Your task to perform on an android device: What's on my calendar tomorrow? Image 0: 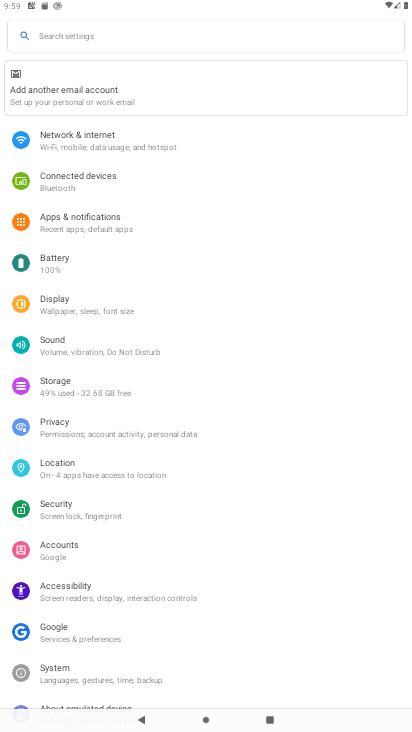
Step 0: press home button
Your task to perform on an android device: What's on my calendar tomorrow? Image 1: 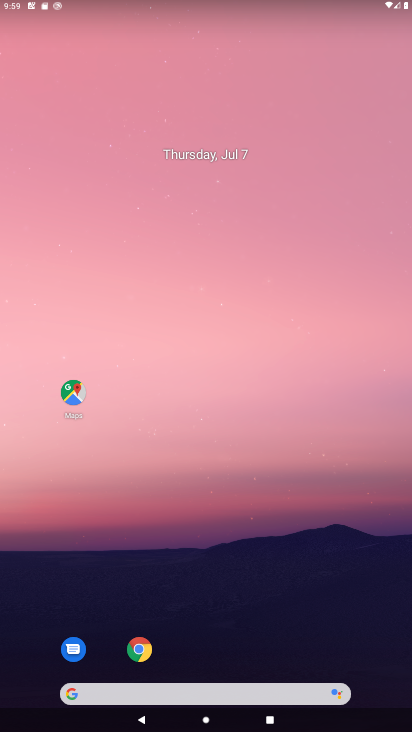
Step 1: drag from (234, 572) to (229, 54)
Your task to perform on an android device: What's on my calendar tomorrow? Image 2: 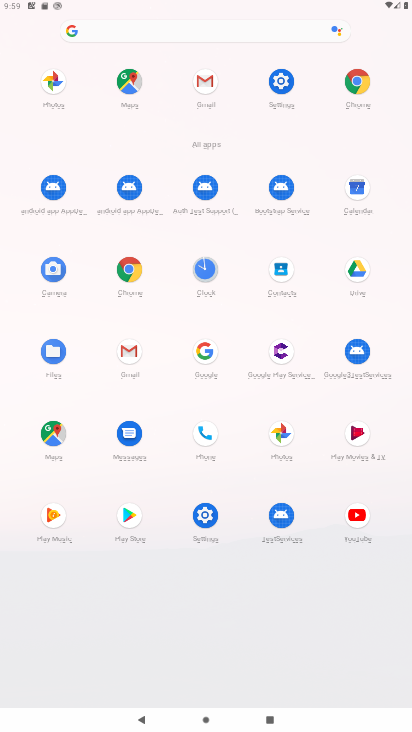
Step 2: click (361, 187)
Your task to perform on an android device: What's on my calendar tomorrow? Image 3: 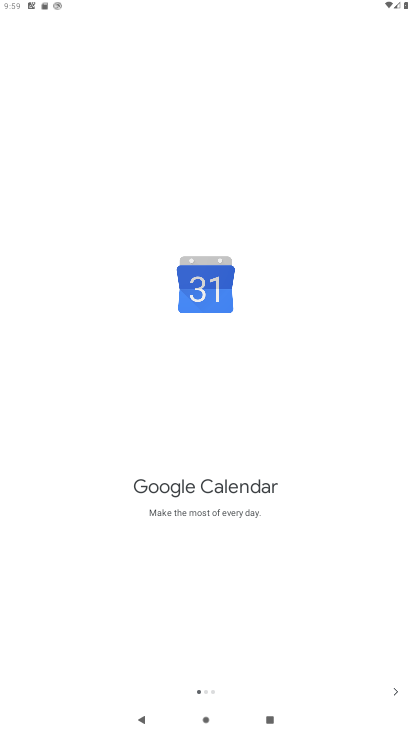
Step 3: click (393, 690)
Your task to perform on an android device: What's on my calendar tomorrow? Image 4: 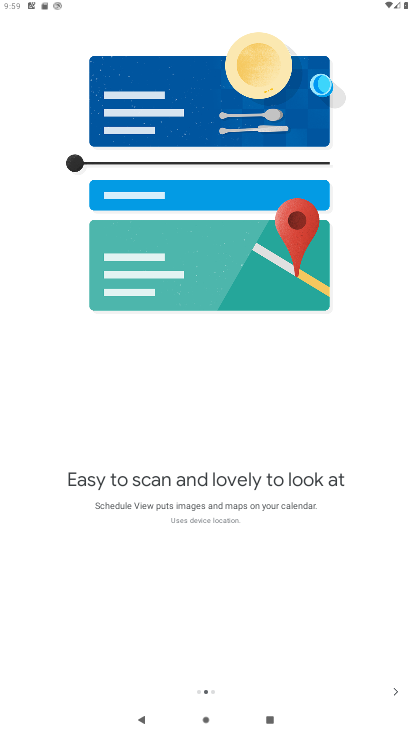
Step 4: click (393, 690)
Your task to perform on an android device: What's on my calendar tomorrow? Image 5: 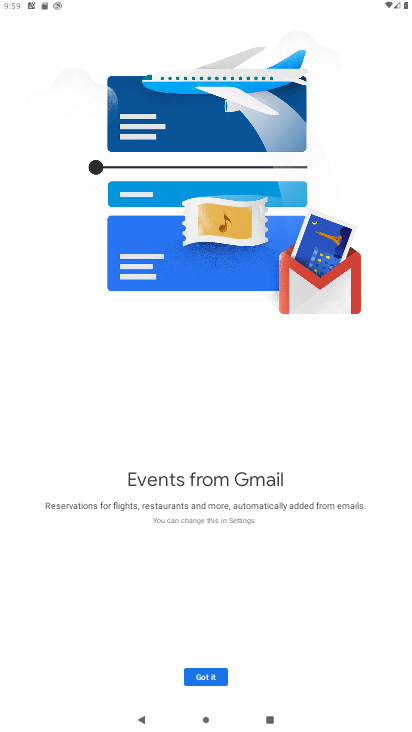
Step 5: click (223, 686)
Your task to perform on an android device: What's on my calendar tomorrow? Image 6: 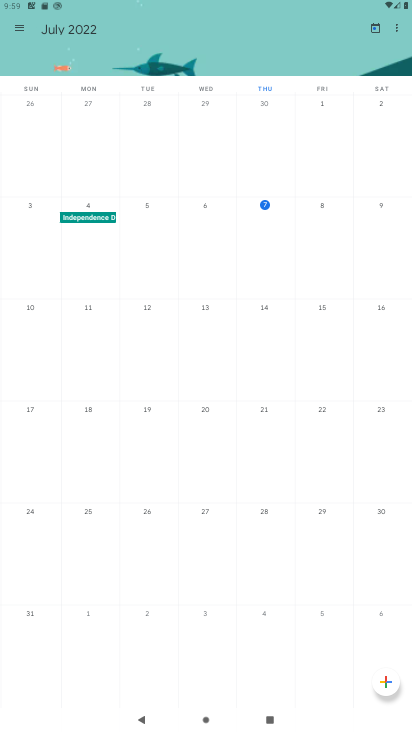
Step 6: click (327, 225)
Your task to perform on an android device: What's on my calendar tomorrow? Image 7: 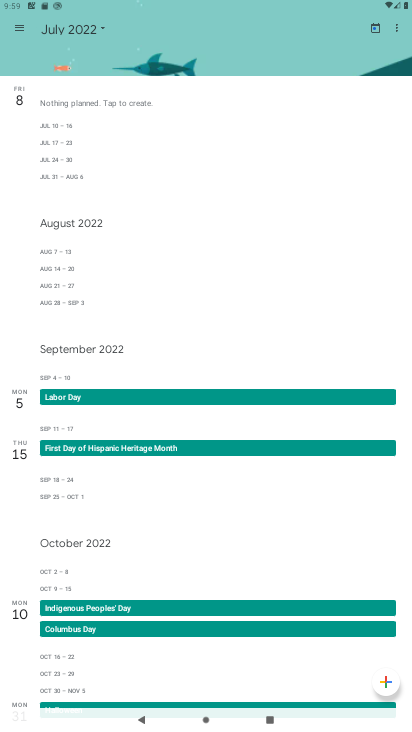
Step 7: task complete